Your task to perform on an android device: open chrome privacy settings Image 0: 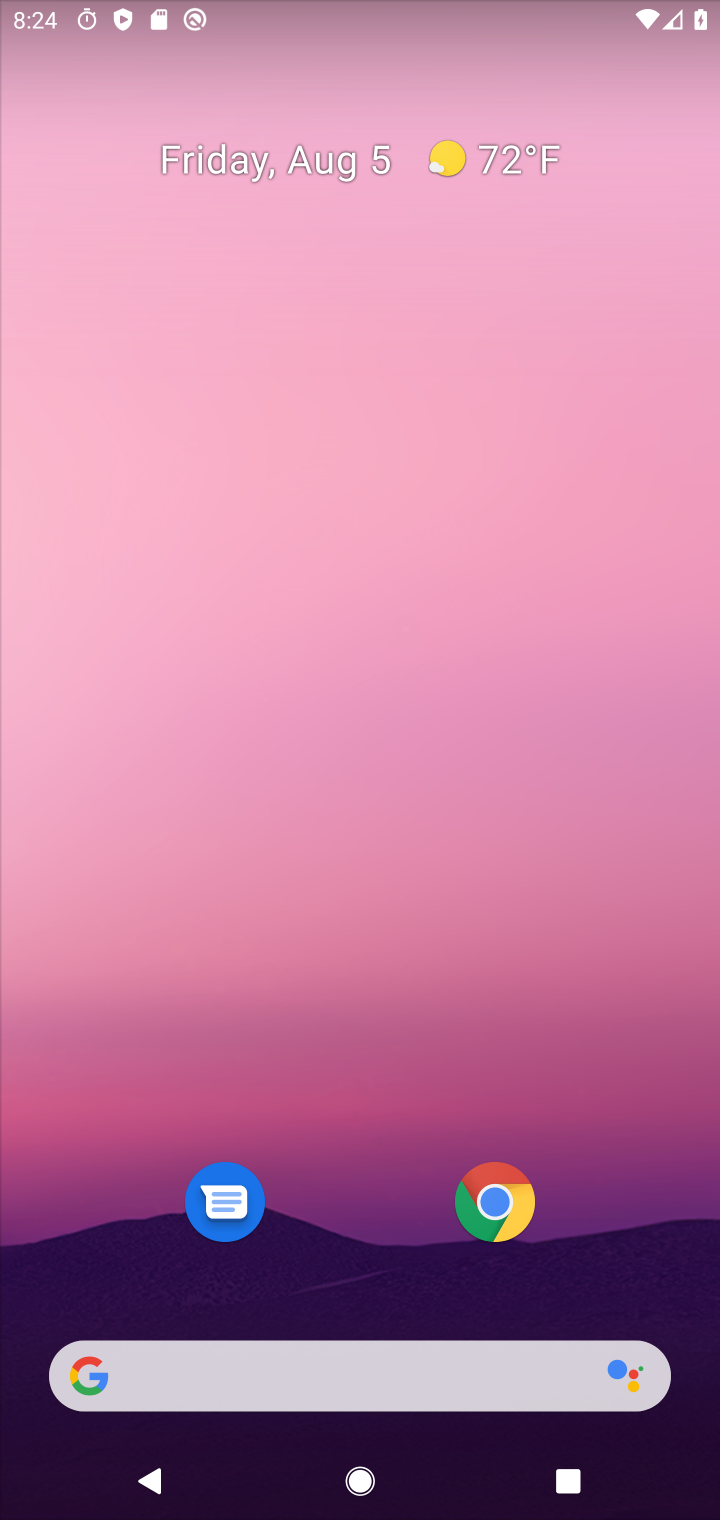
Step 0: click (471, 1208)
Your task to perform on an android device: open chrome privacy settings Image 1: 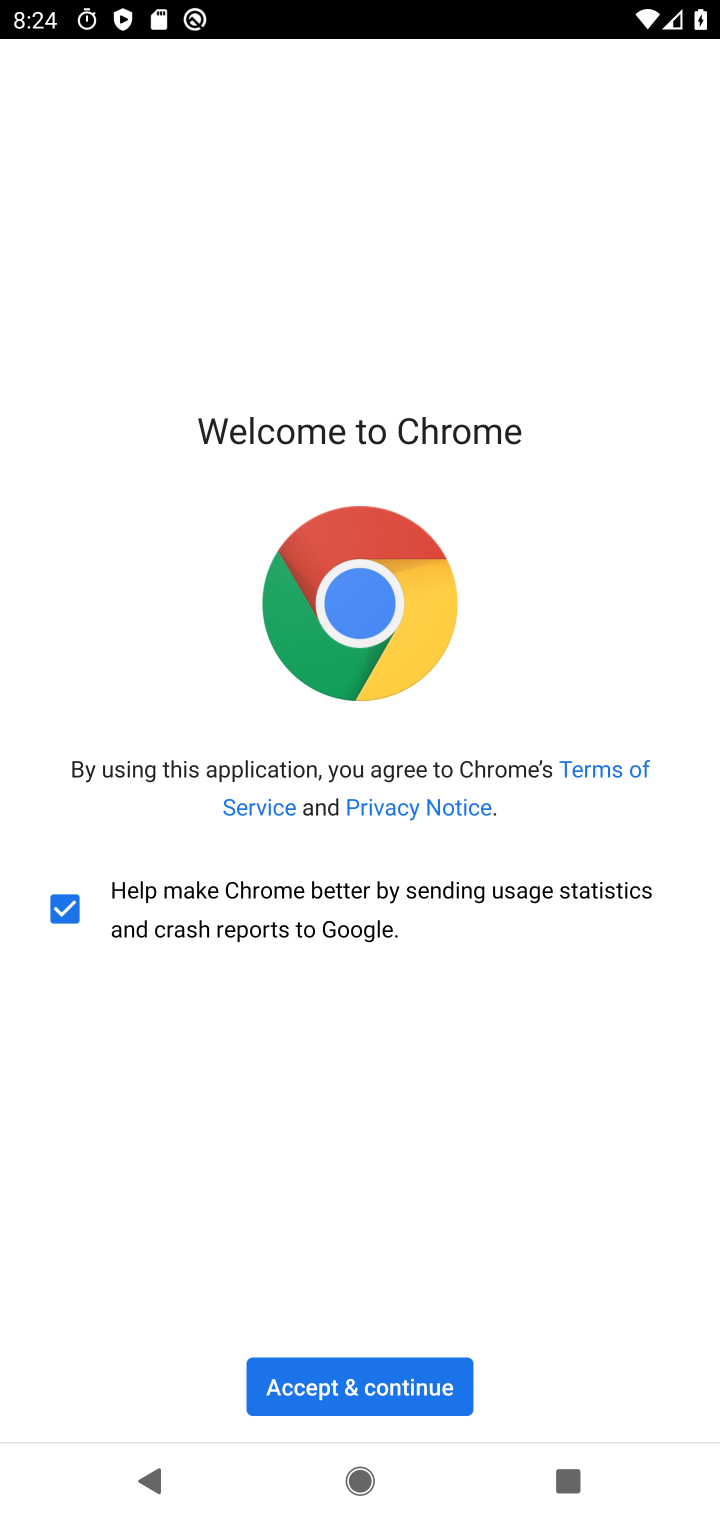
Step 1: click (413, 1365)
Your task to perform on an android device: open chrome privacy settings Image 2: 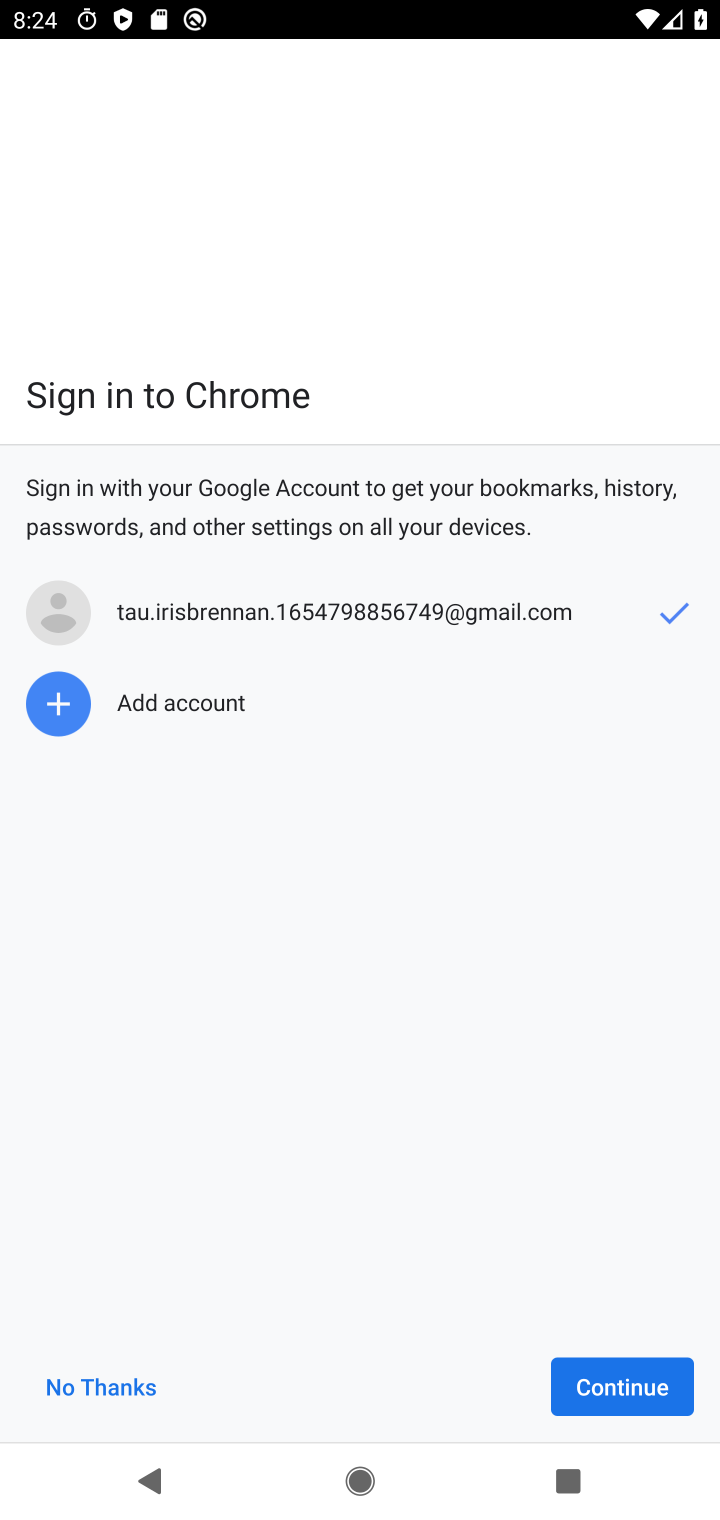
Step 2: click (628, 1378)
Your task to perform on an android device: open chrome privacy settings Image 3: 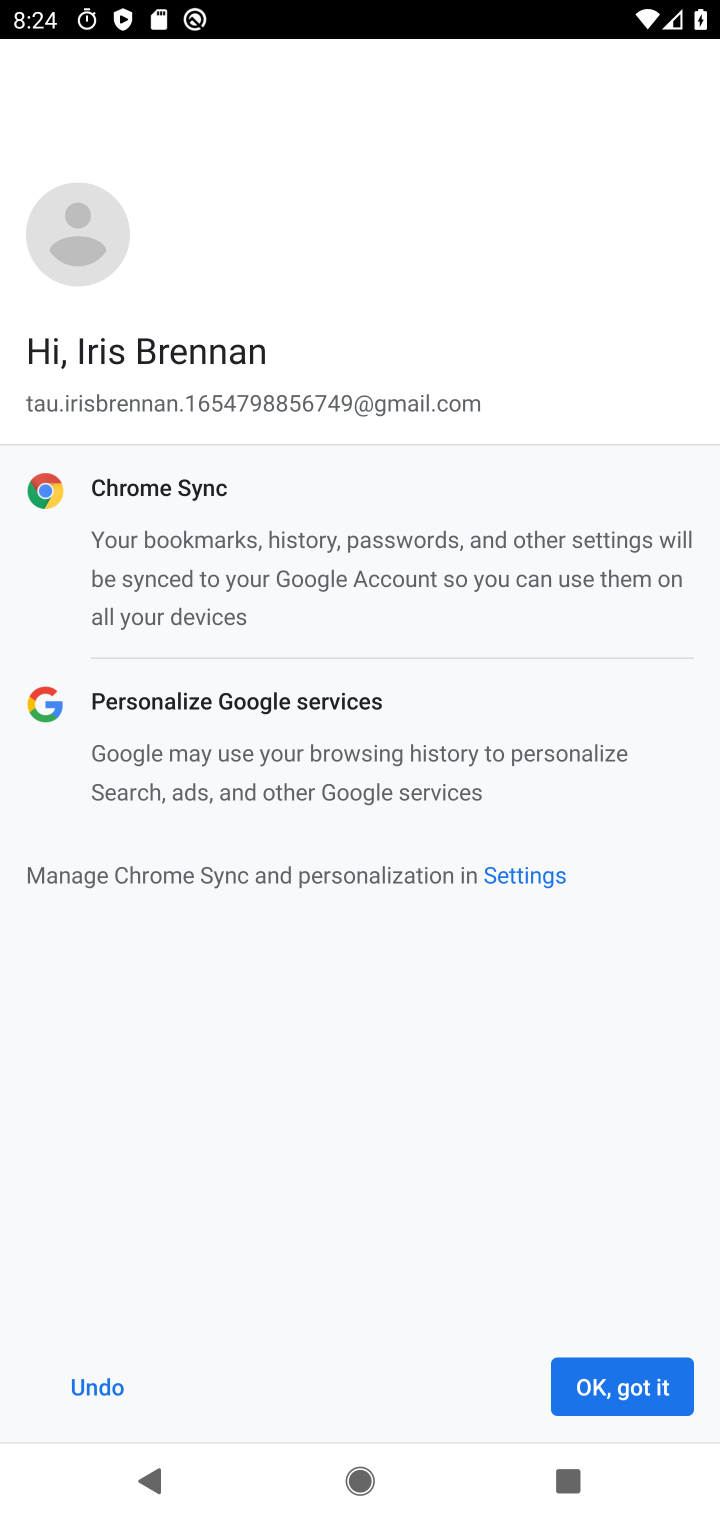
Step 3: click (647, 1378)
Your task to perform on an android device: open chrome privacy settings Image 4: 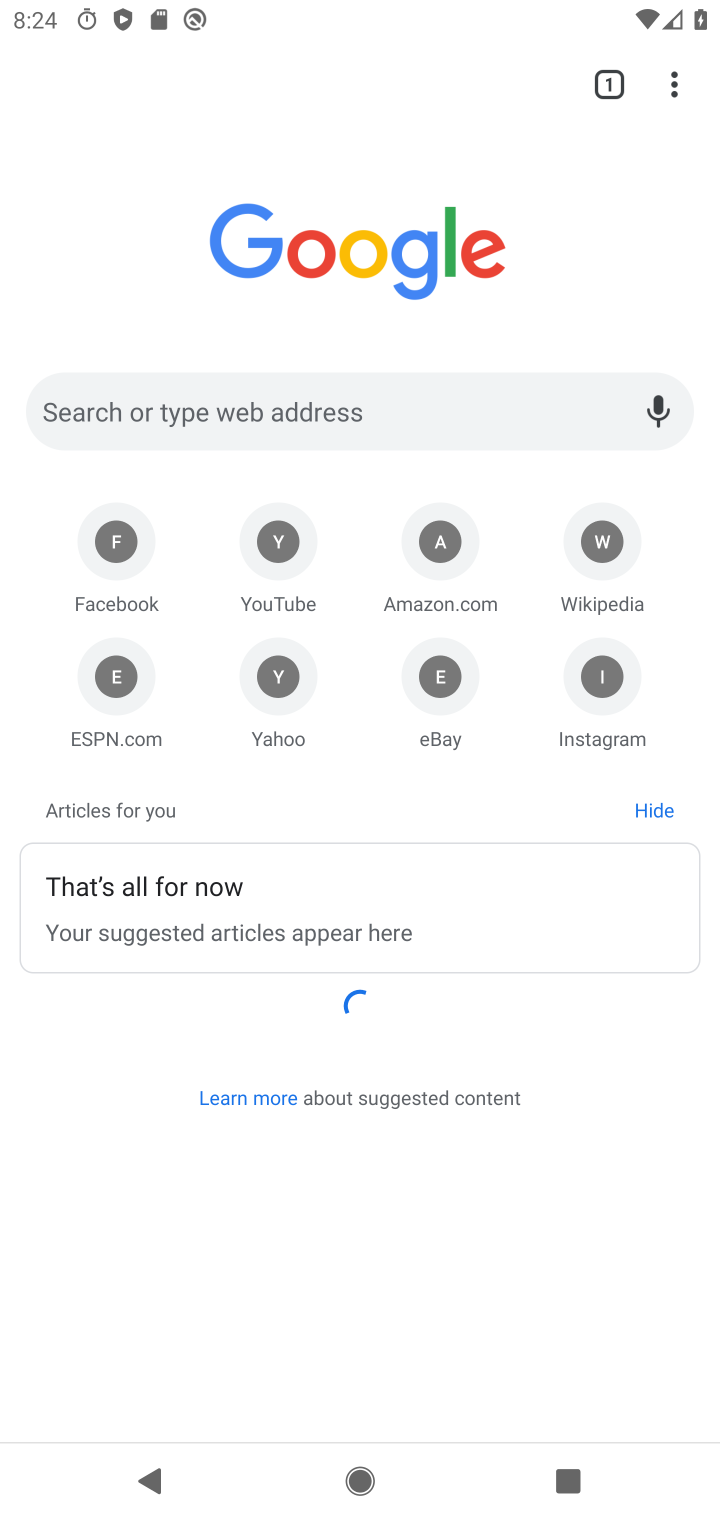
Step 4: click (665, 89)
Your task to perform on an android device: open chrome privacy settings Image 5: 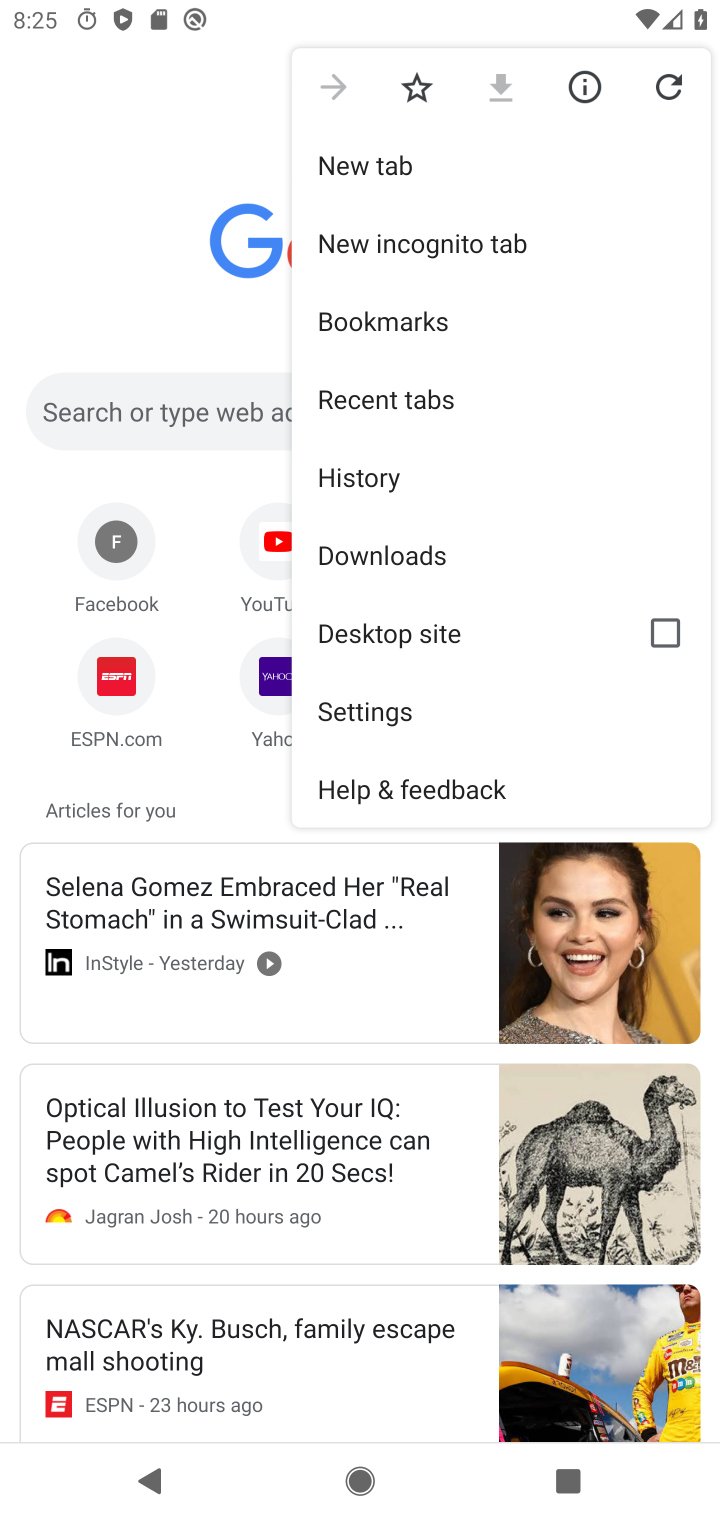
Step 5: click (409, 703)
Your task to perform on an android device: open chrome privacy settings Image 6: 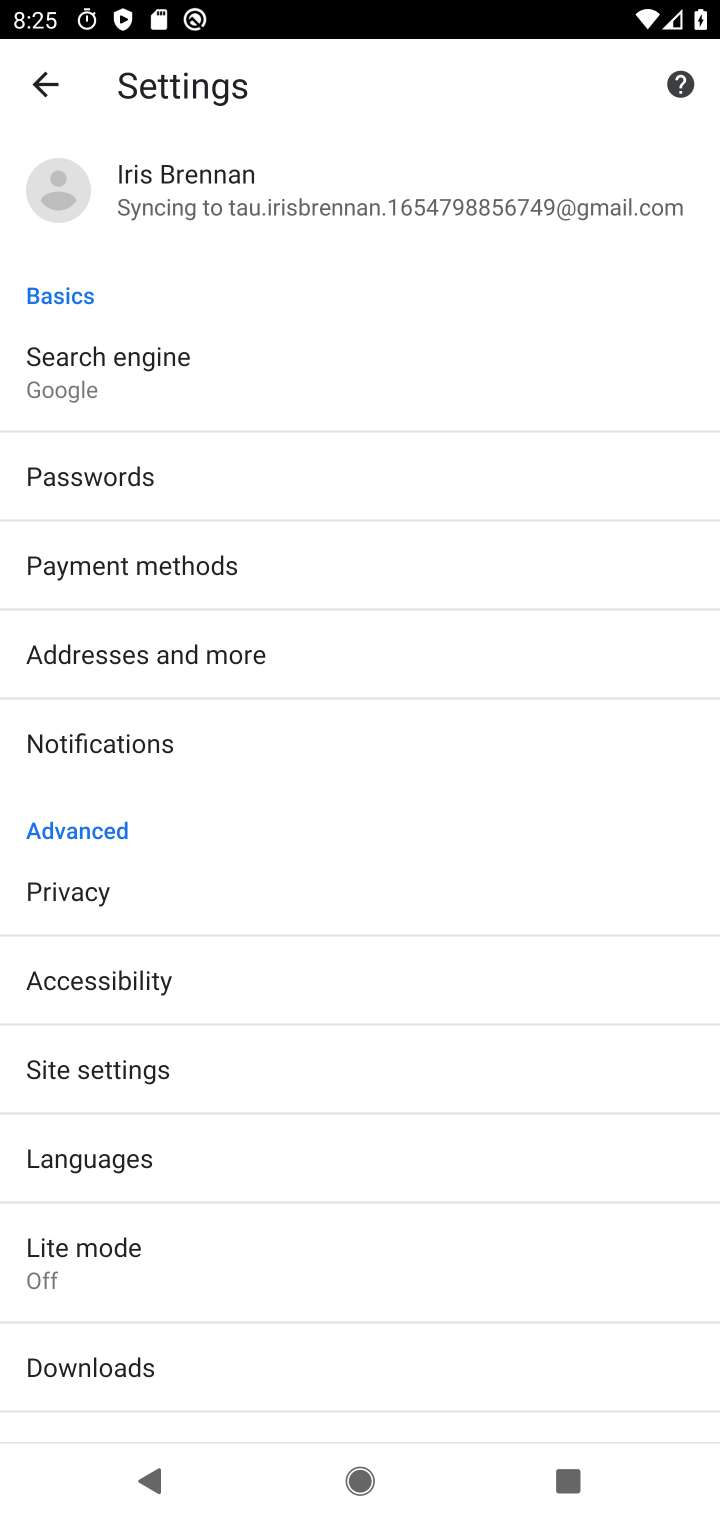
Step 6: click (168, 903)
Your task to perform on an android device: open chrome privacy settings Image 7: 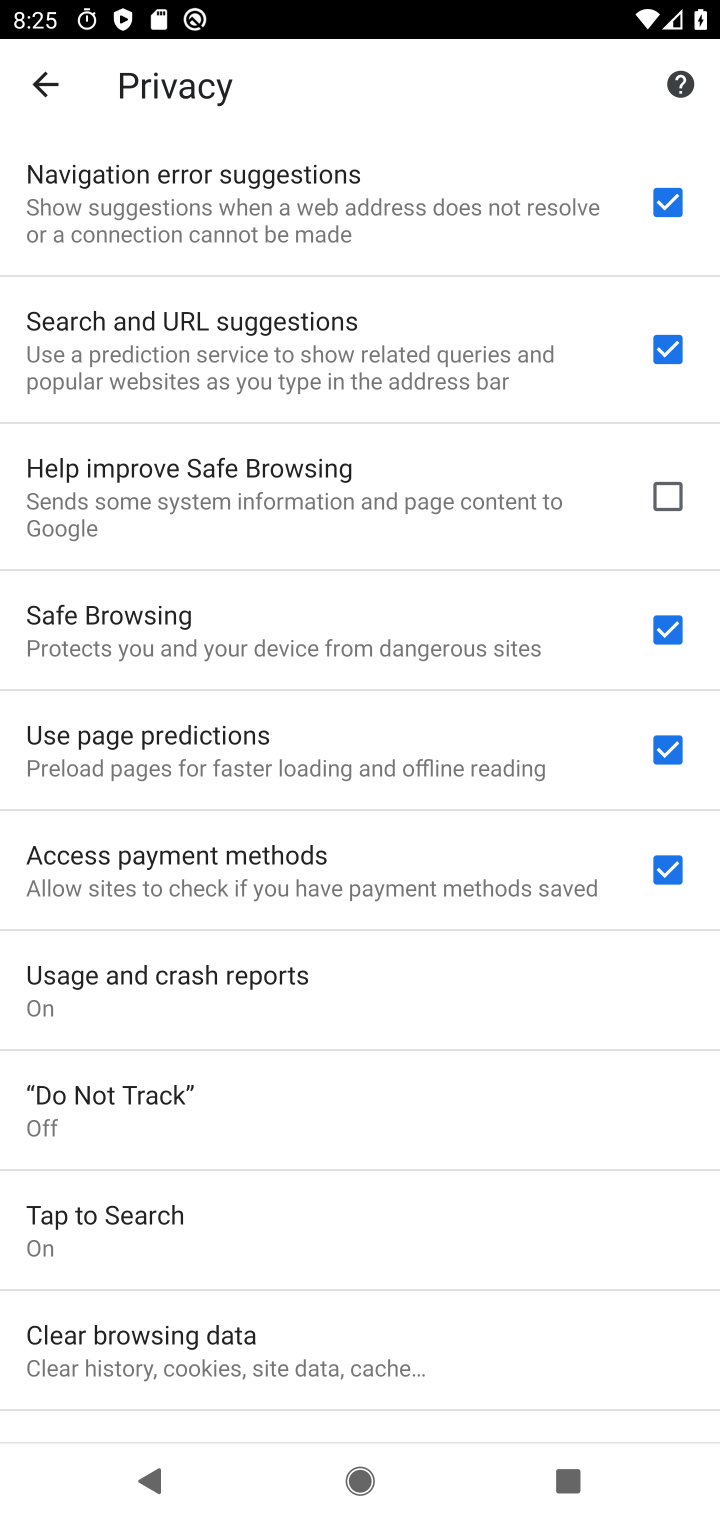
Step 7: task complete